Your task to perform on an android device: Open Amazon Image 0: 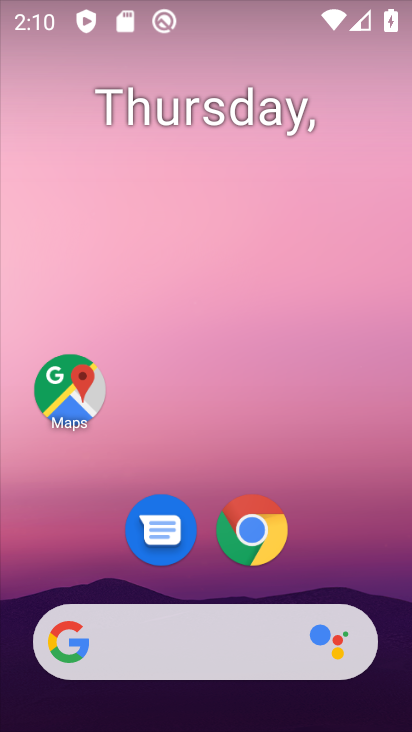
Step 0: click (182, 677)
Your task to perform on an android device: Open Amazon Image 1: 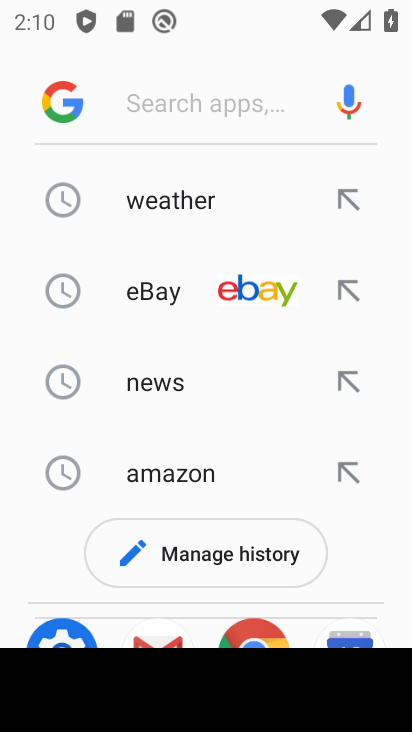
Step 1: type "amazon"
Your task to perform on an android device: Open Amazon Image 2: 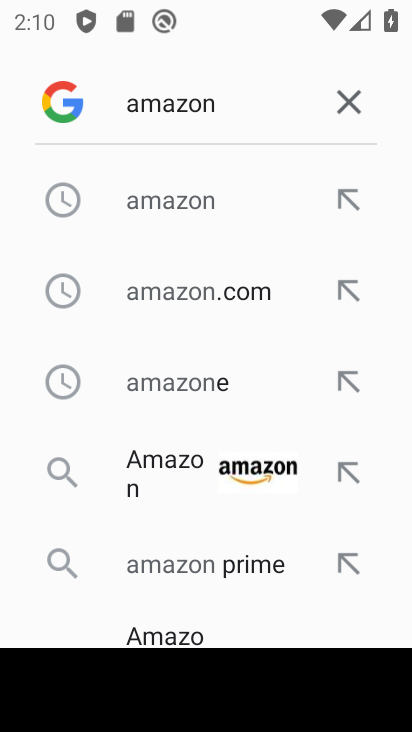
Step 2: click (216, 307)
Your task to perform on an android device: Open Amazon Image 3: 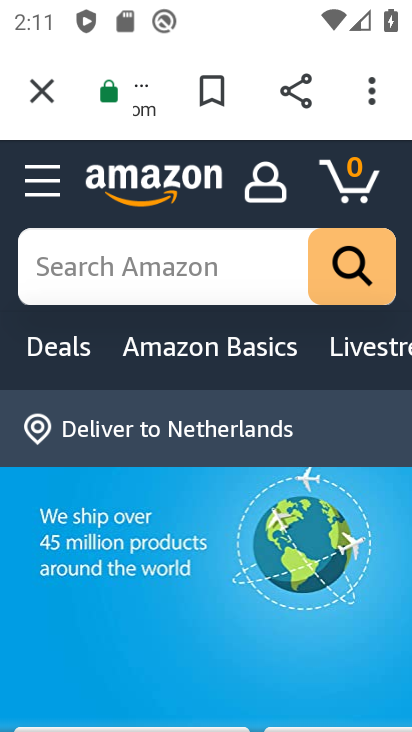
Step 3: task complete